Your task to perform on an android device: Open Google Image 0: 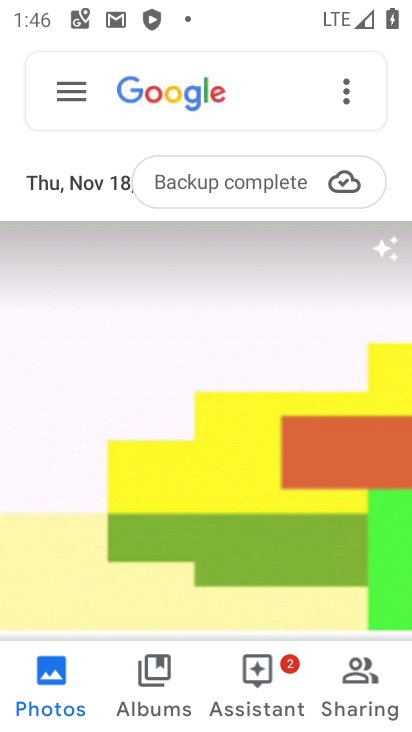
Step 0: press home button
Your task to perform on an android device: Open Google Image 1: 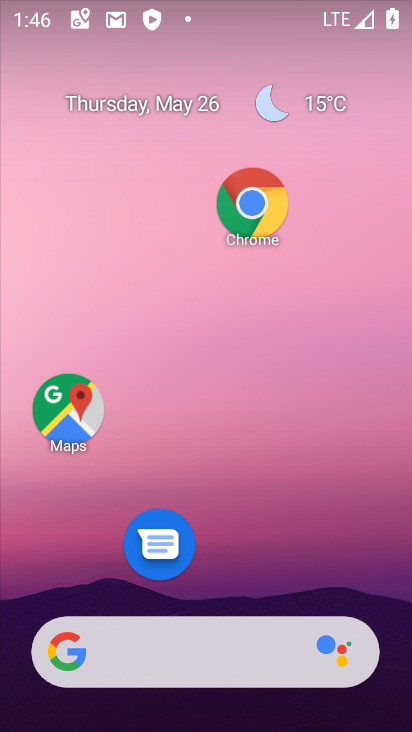
Step 1: drag from (152, 697) to (225, 90)
Your task to perform on an android device: Open Google Image 2: 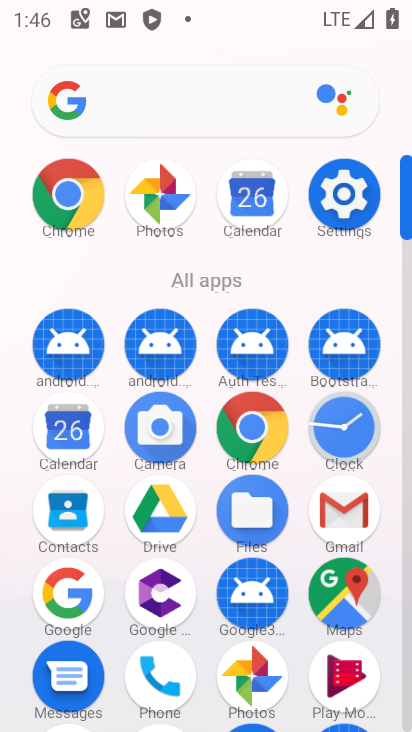
Step 2: click (55, 601)
Your task to perform on an android device: Open Google Image 3: 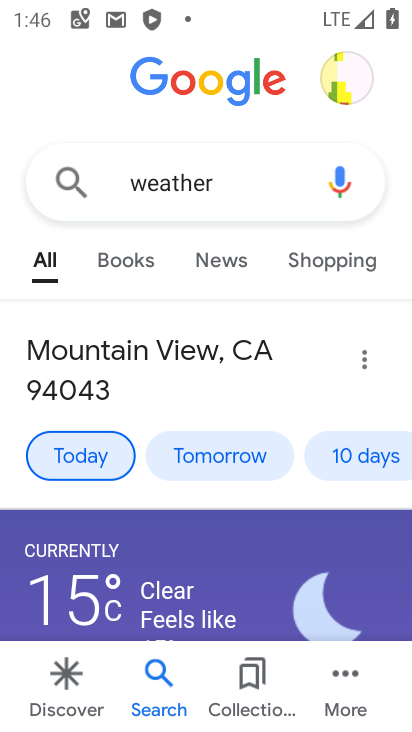
Step 3: task complete